Your task to perform on an android device: open chrome and create a bookmark for the current page Image 0: 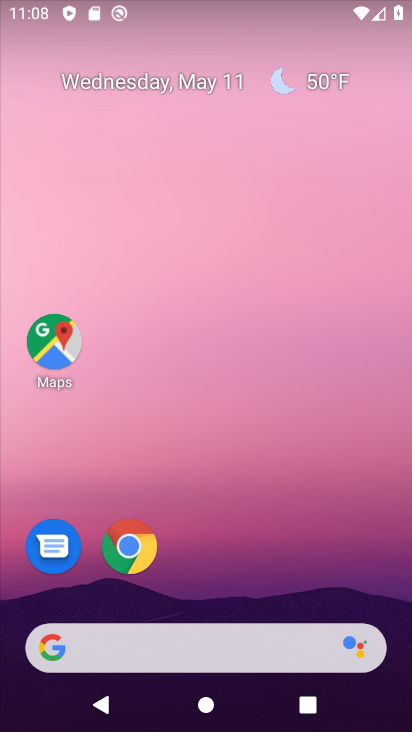
Step 0: click (131, 573)
Your task to perform on an android device: open chrome and create a bookmark for the current page Image 1: 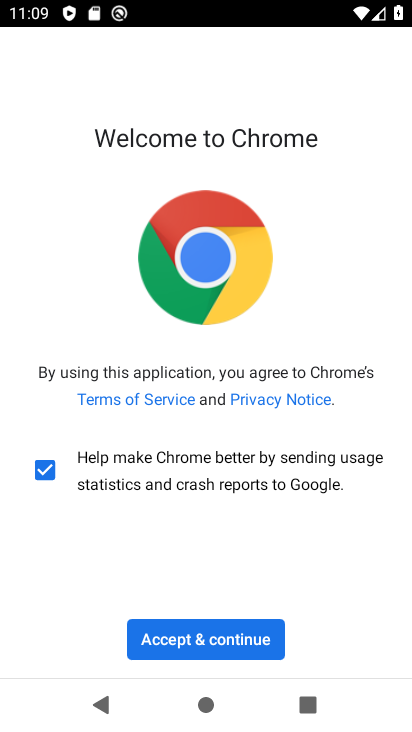
Step 1: click (191, 633)
Your task to perform on an android device: open chrome and create a bookmark for the current page Image 2: 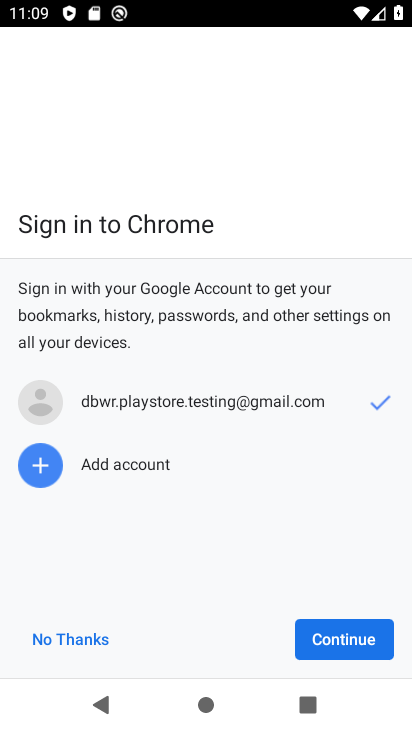
Step 2: click (317, 642)
Your task to perform on an android device: open chrome and create a bookmark for the current page Image 3: 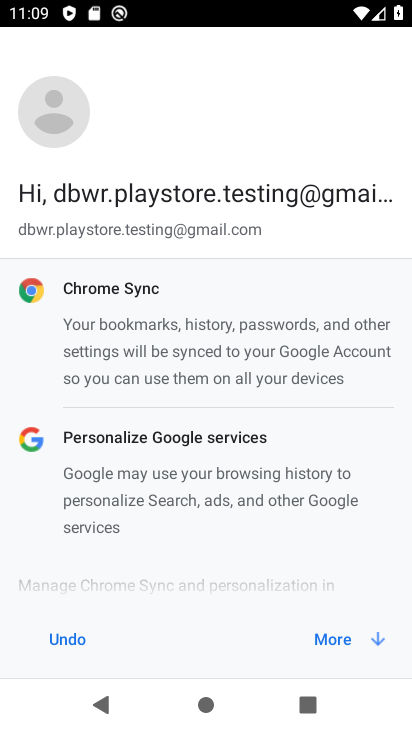
Step 3: click (317, 642)
Your task to perform on an android device: open chrome and create a bookmark for the current page Image 4: 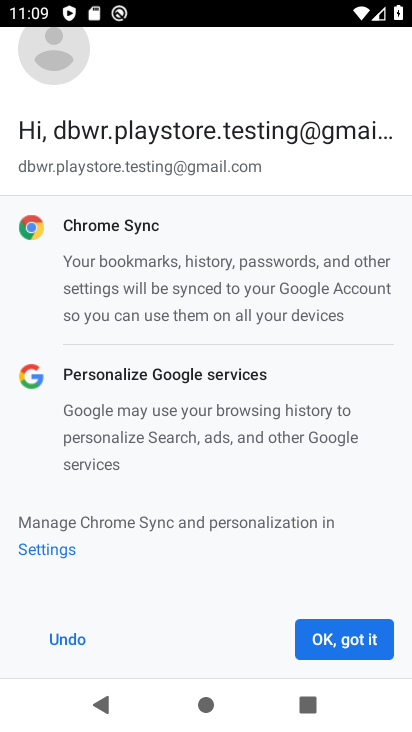
Step 4: click (322, 641)
Your task to perform on an android device: open chrome and create a bookmark for the current page Image 5: 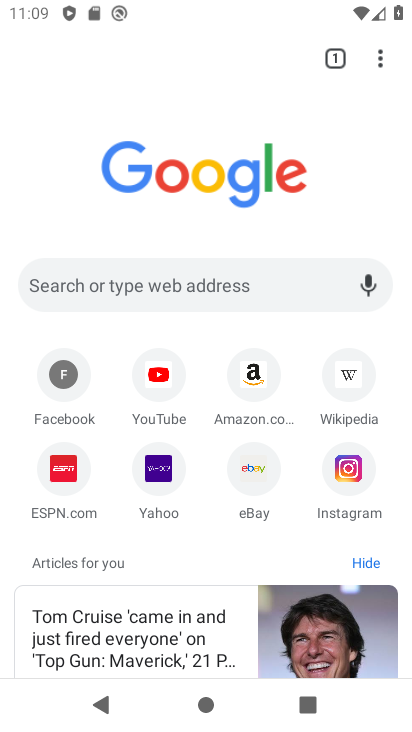
Step 5: task complete